Your task to perform on an android device: Go to accessibility settings Image 0: 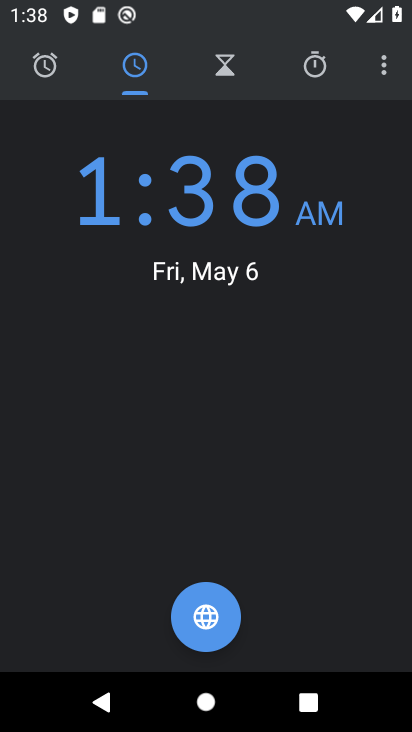
Step 0: drag from (100, 603) to (170, 192)
Your task to perform on an android device: Go to accessibility settings Image 1: 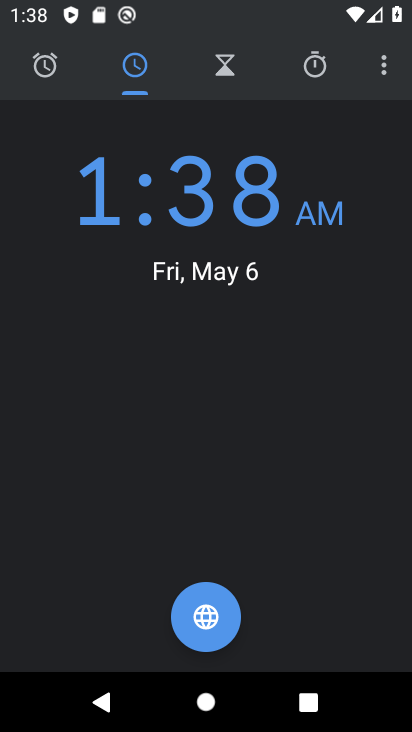
Step 1: press home button
Your task to perform on an android device: Go to accessibility settings Image 2: 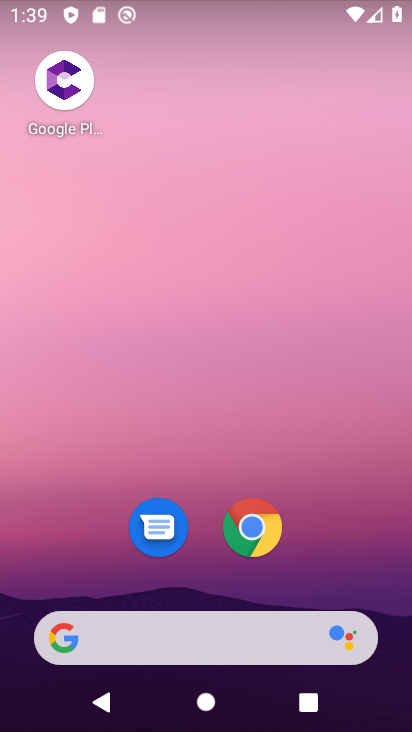
Step 2: drag from (138, 608) to (250, 36)
Your task to perform on an android device: Go to accessibility settings Image 3: 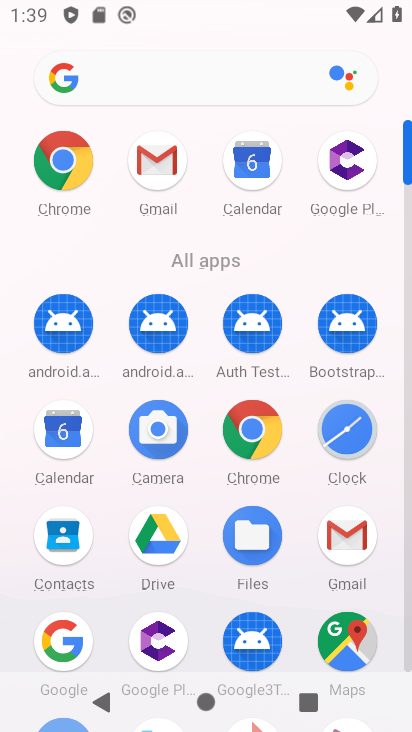
Step 3: drag from (162, 609) to (237, 310)
Your task to perform on an android device: Go to accessibility settings Image 4: 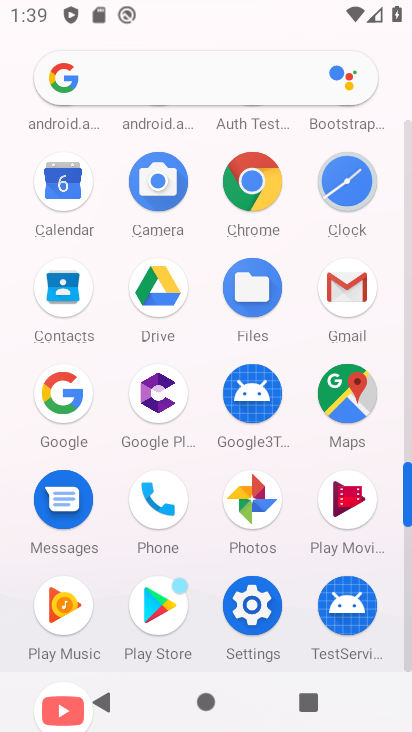
Step 4: click (249, 605)
Your task to perform on an android device: Go to accessibility settings Image 5: 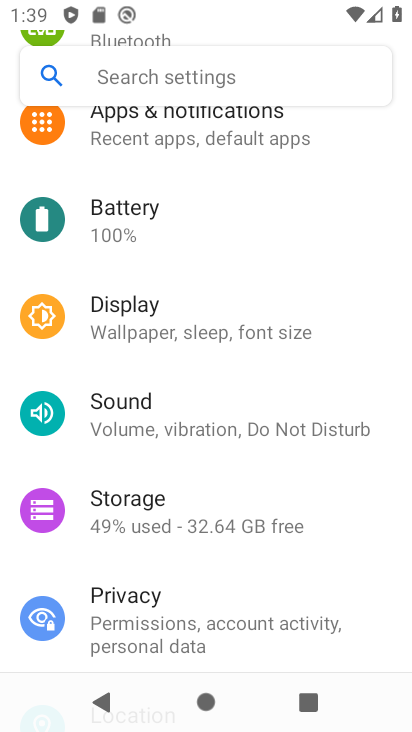
Step 5: drag from (153, 633) to (276, 122)
Your task to perform on an android device: Go to accessibility settings Image 6: 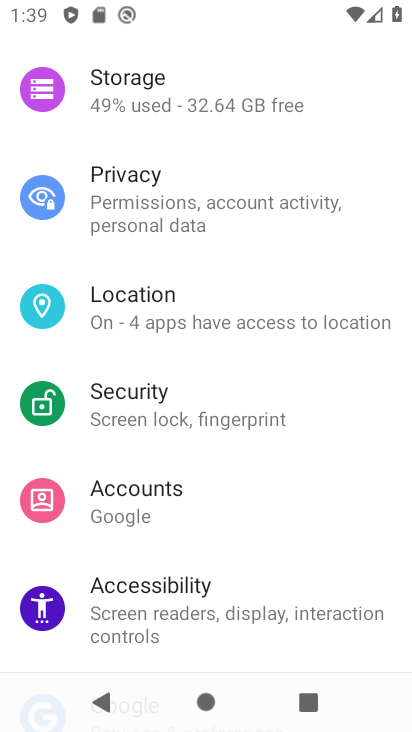
Step 6: drag from (97, 592) to (236, 231)
Your task to perform on an android device: Go to accessibility settings Image 7: 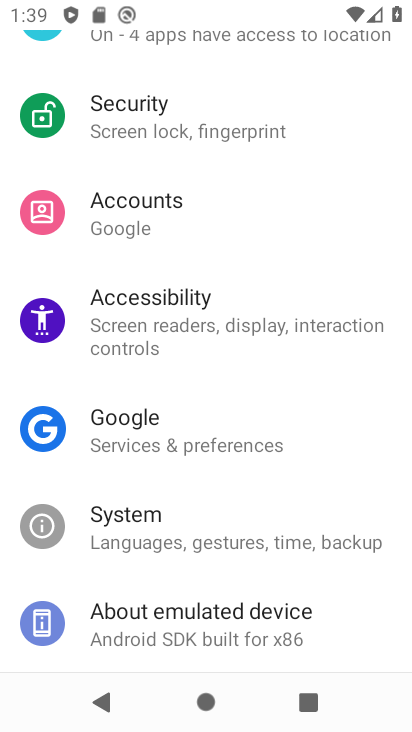
Step 7: click (188, 313)
Your task to perform on an android device: Go to accessibility settings Image 8: 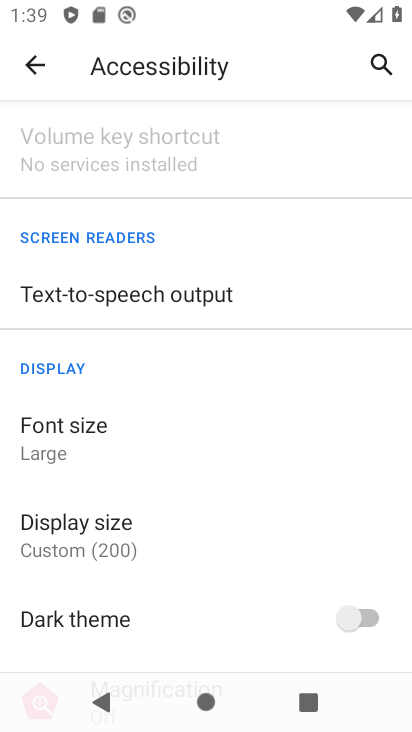
Step 8: task complete